Your task to perform on an android device: turn on bluetooth scan Image 0: 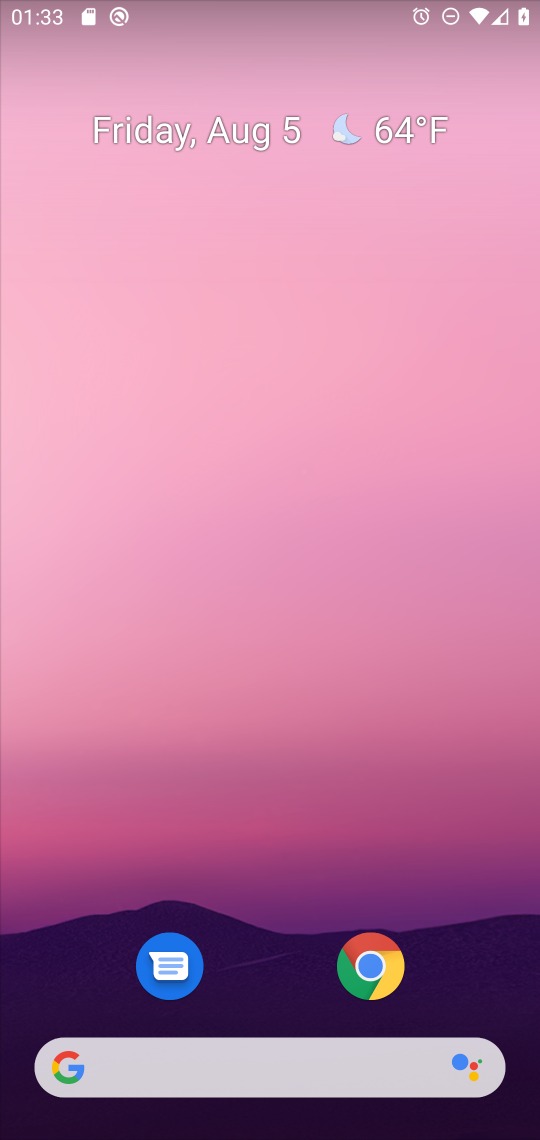
Step 0: drag from (263, 964) to (206, 57)
Your task to perform on an android device: turn on bluetooth scan Image 1: 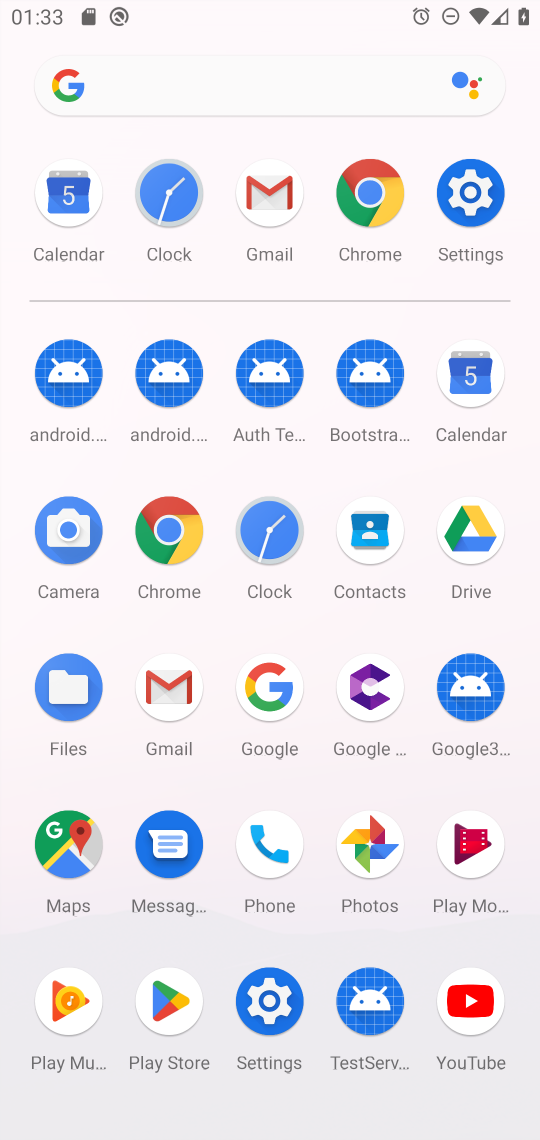
Step 1: click (484, 189)
Your task to perform on an android device: turn on bluetooth scan Image 2: 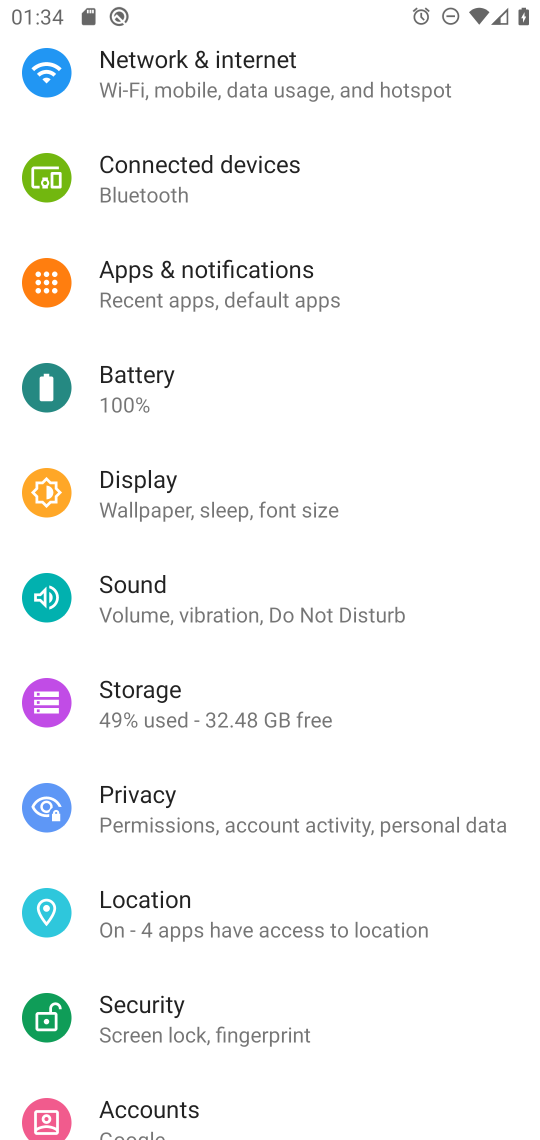
Step 2: click (328, 908)
Your task to perform on an android device: turn on bluetooth scan Image 3: 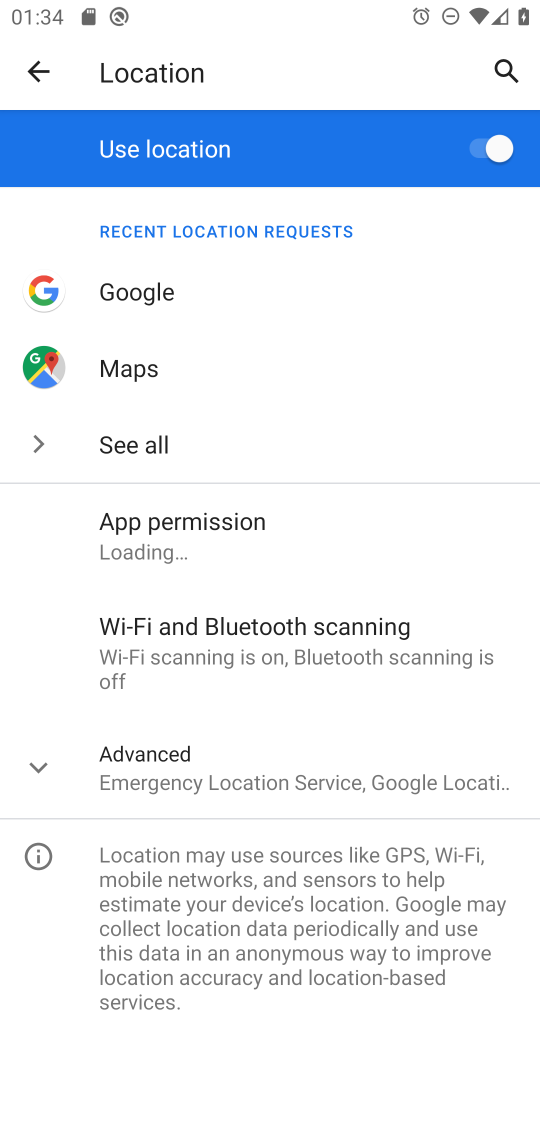
Step 3: click (362, 644)
Your task to perform on an android device: turn on bluetooth scan Image 4: 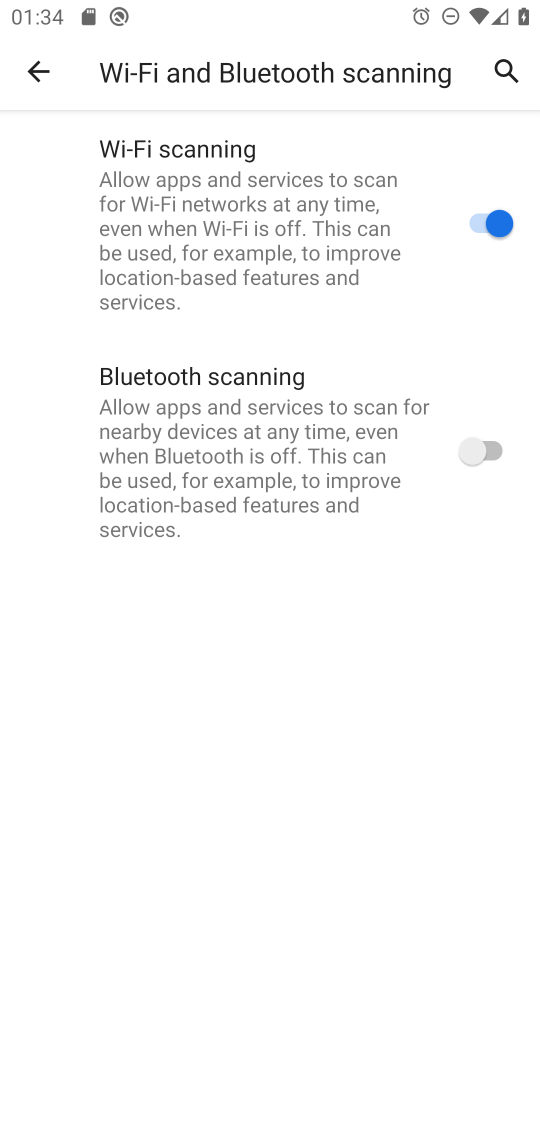
Step 4: click (485, 438)
Your task to perform on an android device: turn on bluetooth scan Image 5: 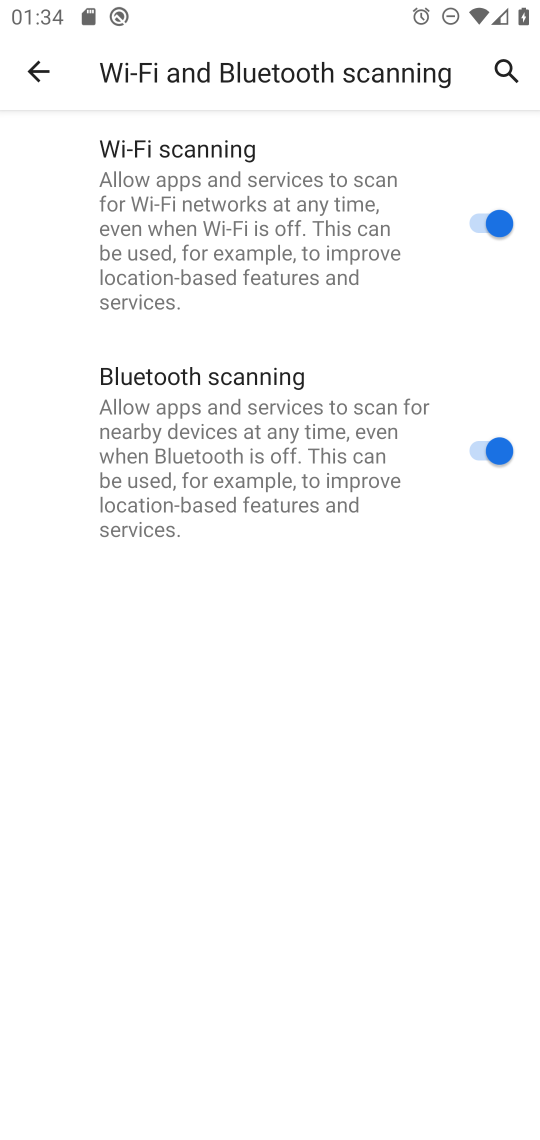
Step 5: task complete